Your task to perform on an android device: Open Amazon Image 0: 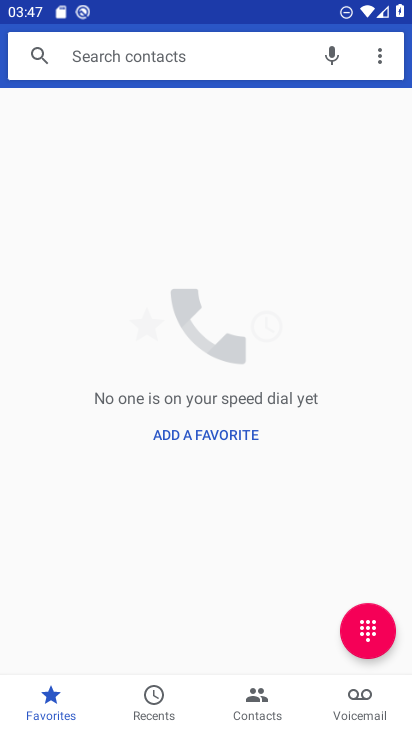
Step 0: press home button
Your task to perform on an android device: Open Amazon Image 1: 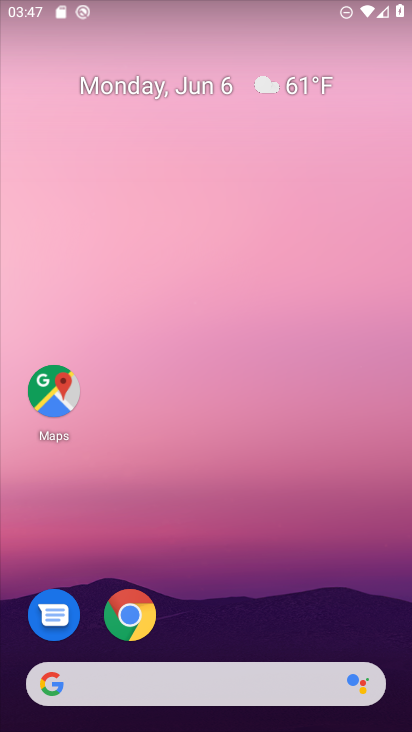
Step 1: click (131, 619)
Your task to perform on an android device: Open Amazon Image 2: 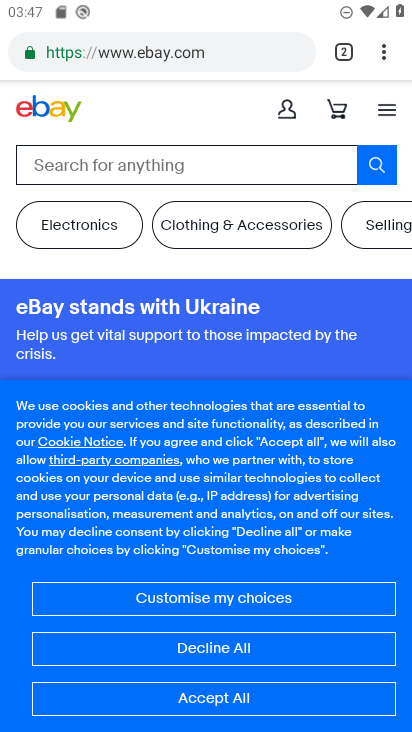
Step 2: click (247, 42)
Your task to perform on an android device: Open Amazon Image 3: 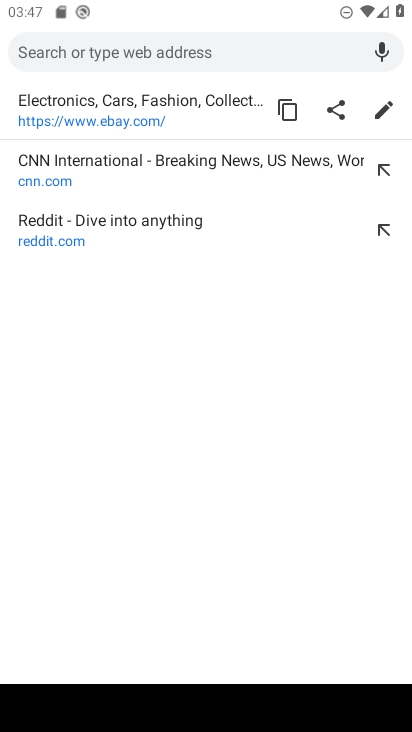
Step 3: type "amazon"
Your task to perform on an android device: Open Amazon Image 4: 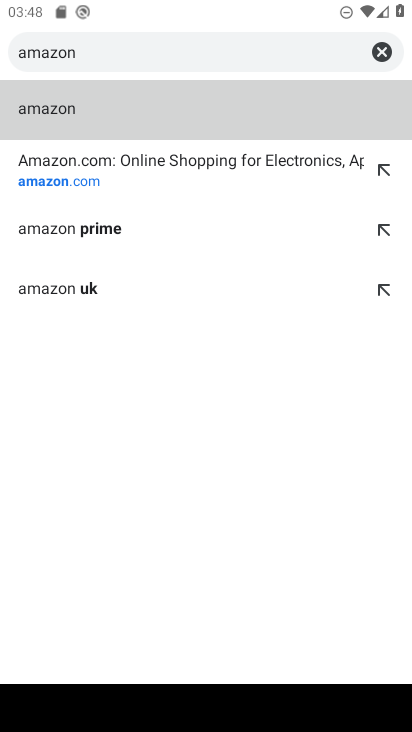
Step 4: click (53, 125)
Your task to perform on an android device: Open Amazon Image 5: 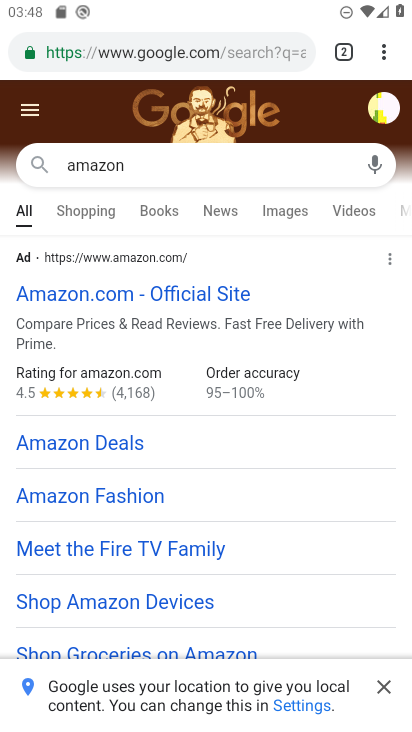
Step 5: click (46, 307)
Your task to perform on an android device: Open Amazon Image 6: 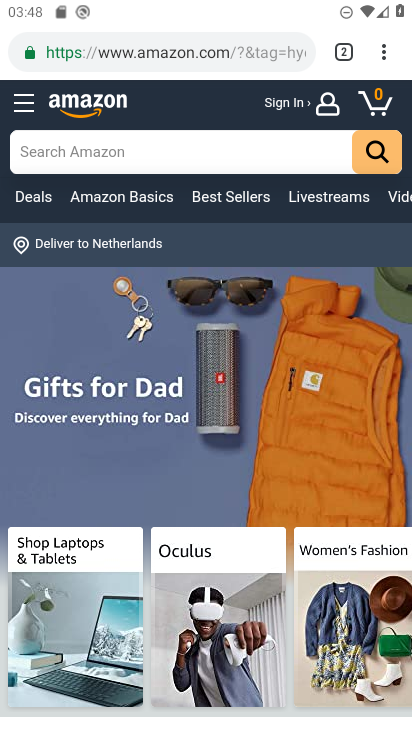
Step 6: task complete